Your task to perform on an android device: change the clock display to digital Image 0: 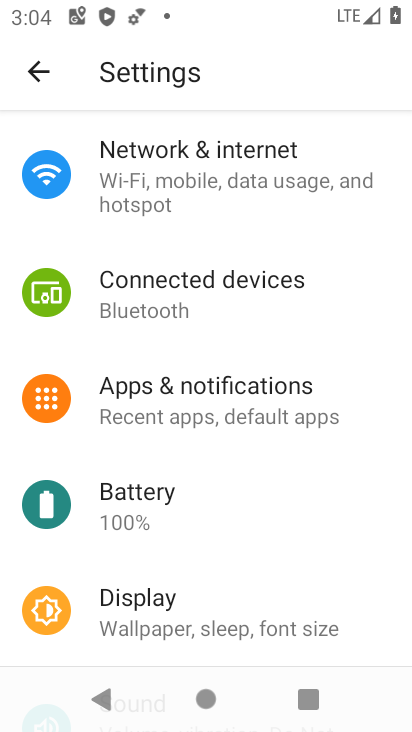
Step 0: press home button
Your task to perform on an android device: change the clock display to digital Image 1: 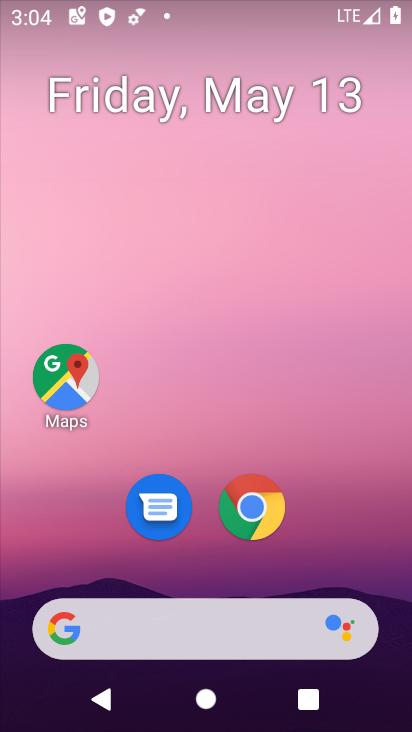
Step 1: drag from (320, 552) to (325, 65)
Your task to perform on an android device: change the clock display to digital Image 2: 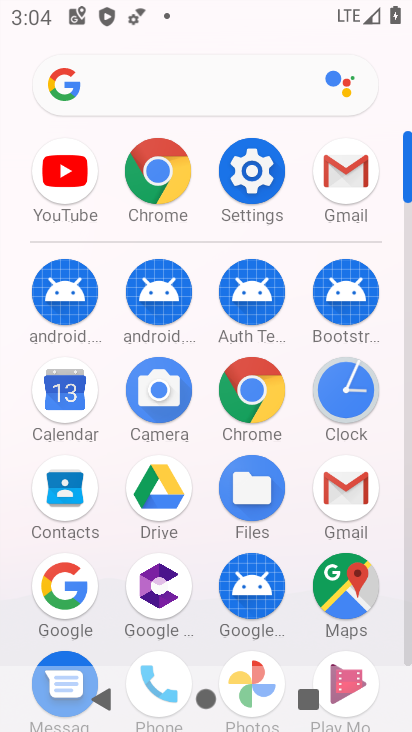
Step 2: click (347, 405)
Your task to perform on an android device: change the clock display to digital Image 3: 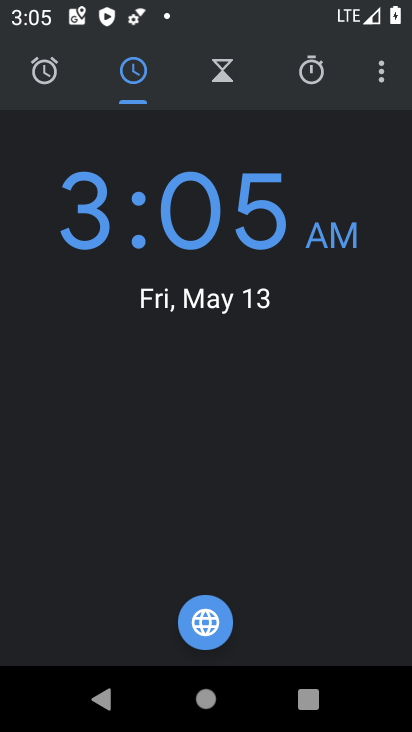
Step 3: click (371, 63)
Your task to perform on an android device: change the clock display to digital Image 4: 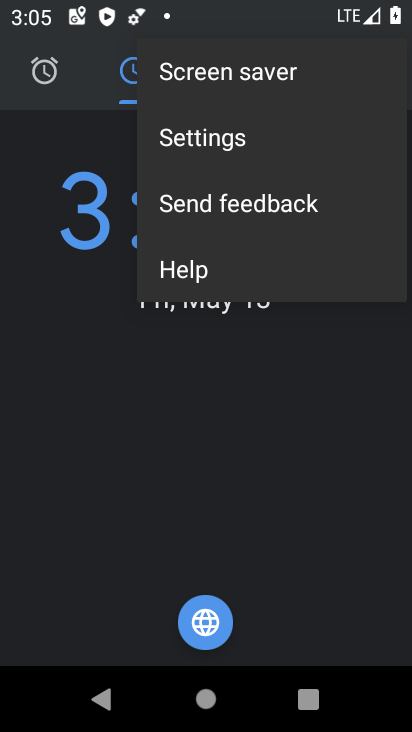
Step 4: click (225, 143)
Your task to perform on an android device: change the clock display to digital Image 5: 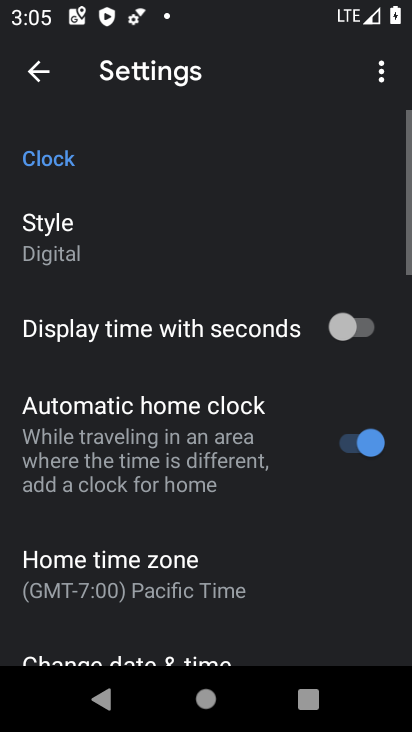
Step 5: click (61, 224)
Your task to perform on an android device: change the clock display to digital Image 6: 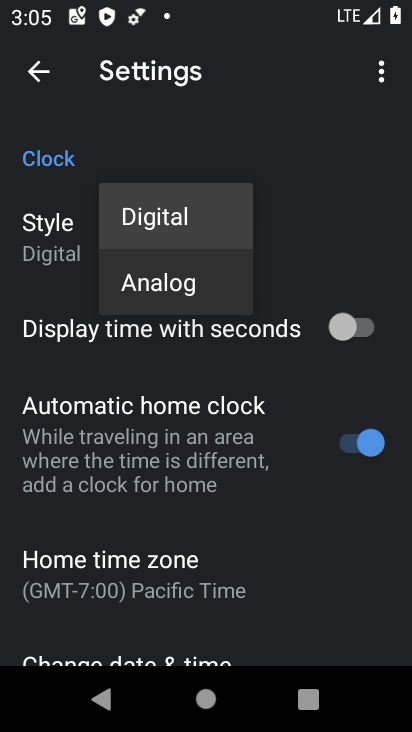
Step 6: task complete